Your task to perform on an android device: open chrome privacy settings Image 0: 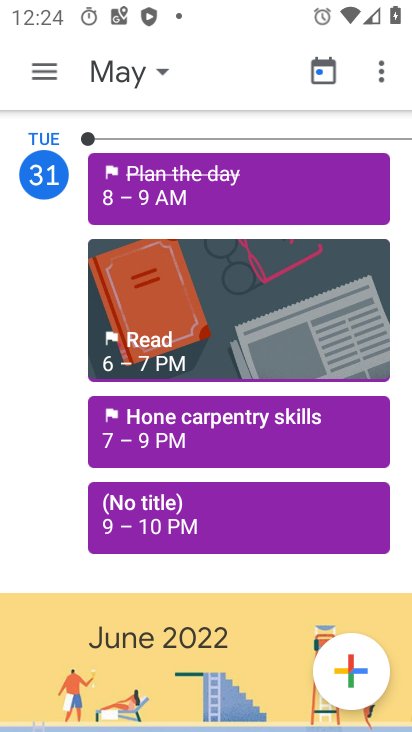
Step 0: press home button
Your task to perform on an android device: open chrome privacy settings Image 1: 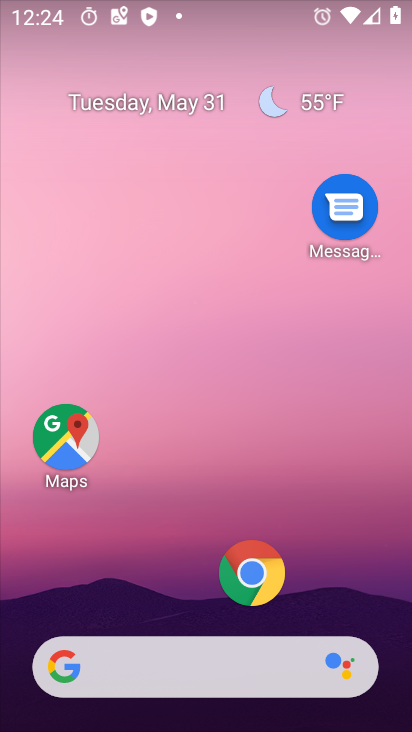
Step 1: click (255, 579)
Your task to perform on an android device: open chrome privacy settings Image 2: 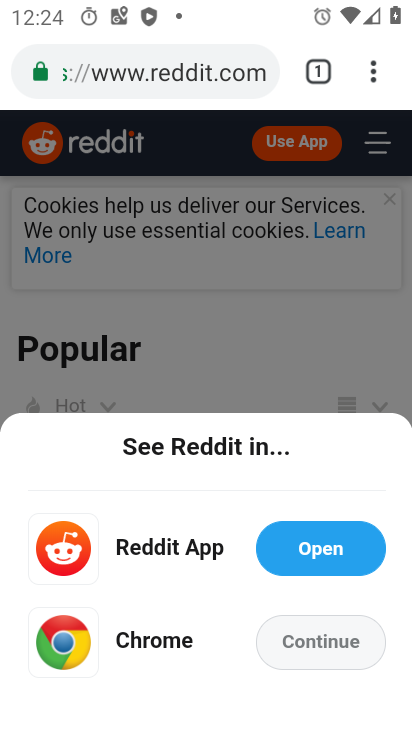
Step 2: click (369, 65)
Your task to perform on an android device: open chrome privacy settings Image 3: 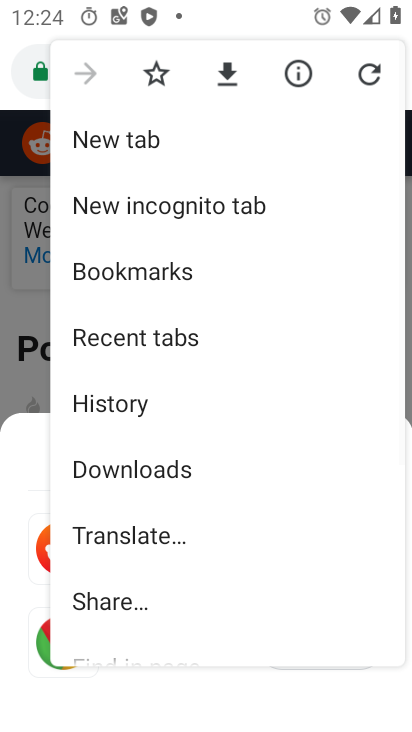
Step 3: drag from (208, 566) to (263, 243)
Your task to perform on an android device: open chrome privacy settings Image 4: 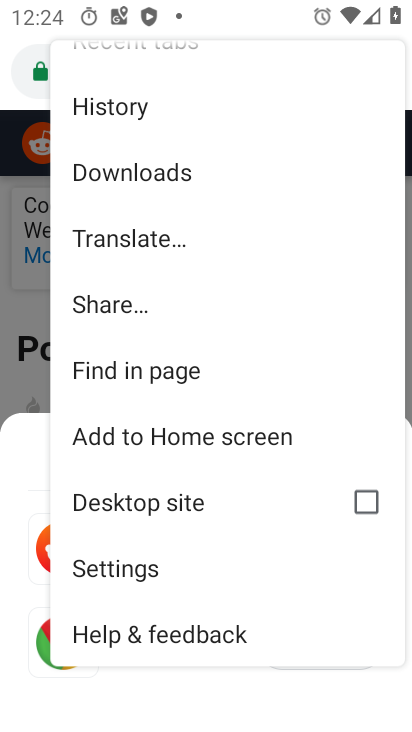
Step 4: click (167, 576)
Your task to perform on an android device: open chrome privacy settings Image 5: 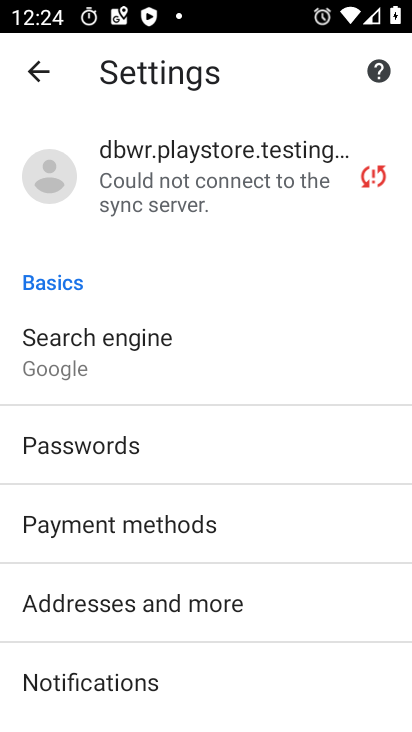
Step 5: drag from (193, 644) to (199, 297)
Your task to perform on an android device: open chrome privacy settings Image 6: 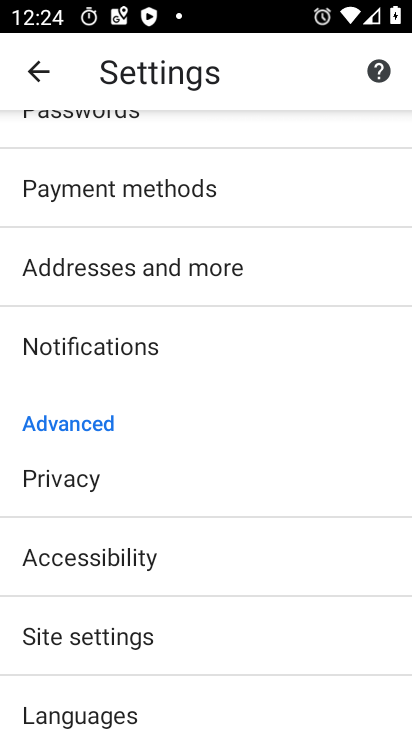
Step 6: click (62, 484)
Your task to perform on an android device: open chrome privacy settings Image 7: 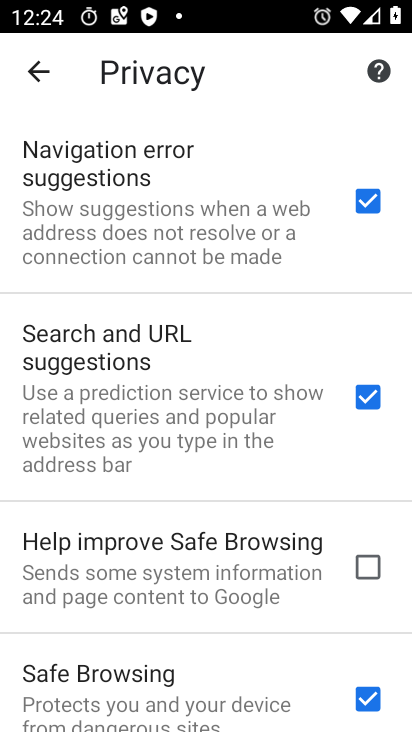
Step 7: task complete